Your task to perform on an android device: delete a single message in the gmail app Image 0: 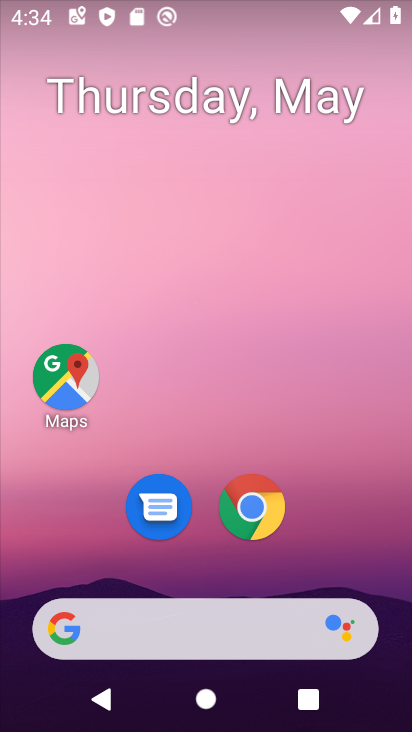
Step 0: drag from (225, 578) to (242, 117)
Your task to perform on an android device: delete a single message in the gmail app Image 1: 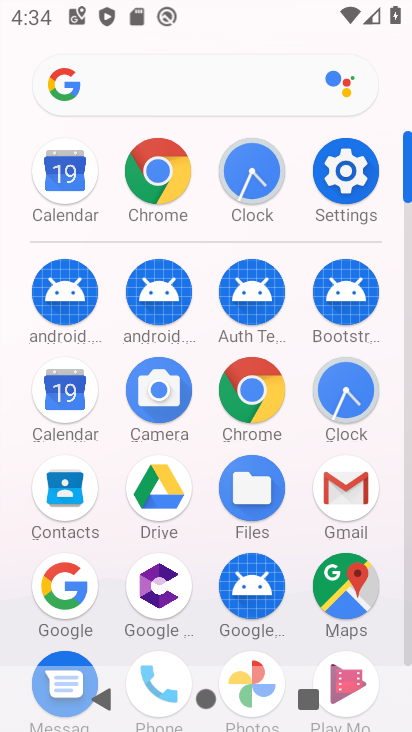
Step 1: click (337, 483)
Your task to perform on an android device: delete a single message in the gmail app Image 2: 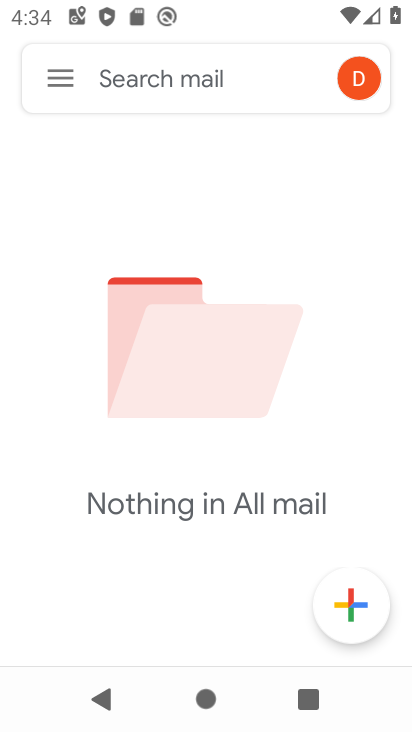
Step 2: task complete